Your task to perform on an android device: turn on showing notifications on the lock screen Image 0: 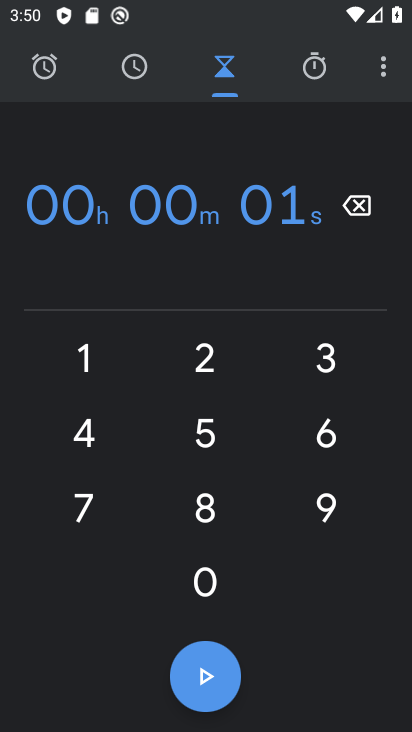
Step 0: press home button
Your task to perform on an android device: turn on showing notifications on the lock screen Image 1: 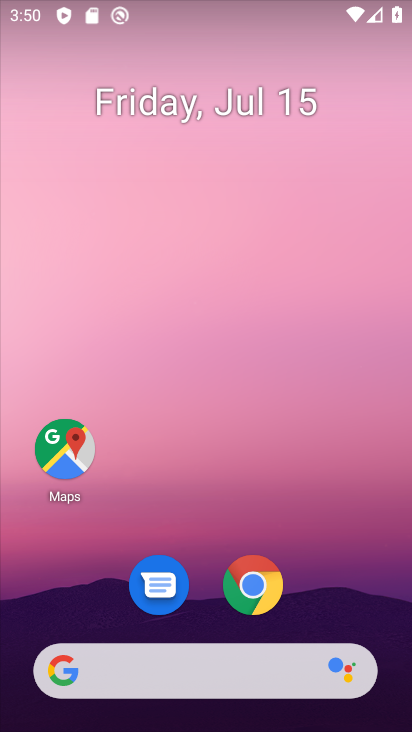
Step 1: drag from (317, 563) to (294, 0)
Your task to perform on an android device: turn on showing notifications on the lock screen Image 2: 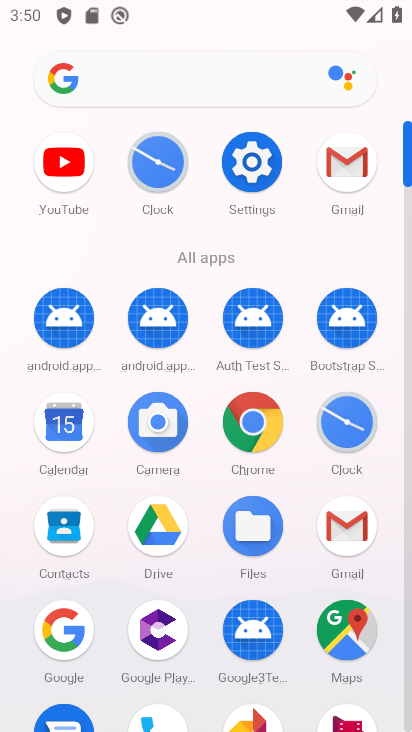
Step 2: click (250, 172)
Your task to perform on an android device: turn on showing notifications on the lock screen Image 3: 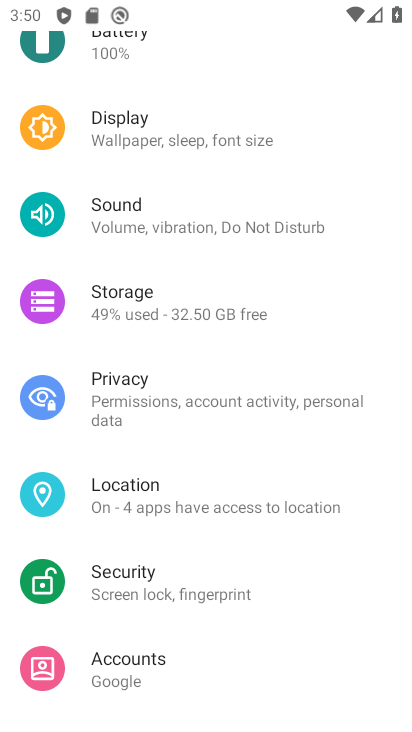
Step 3: drag from (208, 192) to (298, 565)
Your task to perform on an android device: turn on showing notifications on the lock screen Image 4: 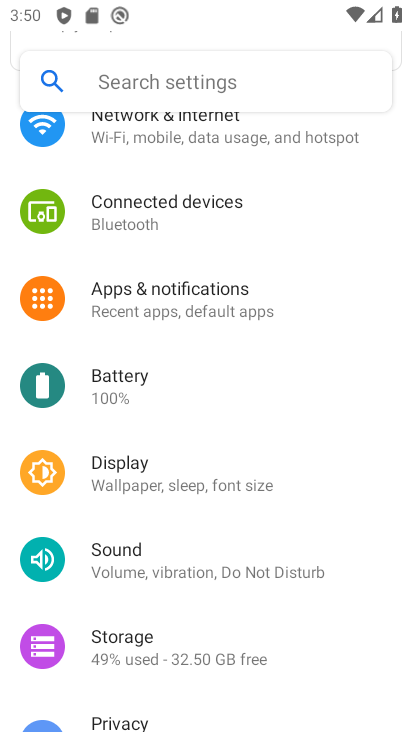
Step 4: click (244, 292)
Your task to perform on an android device: turn on showing notifications on the lock screen Image 5: 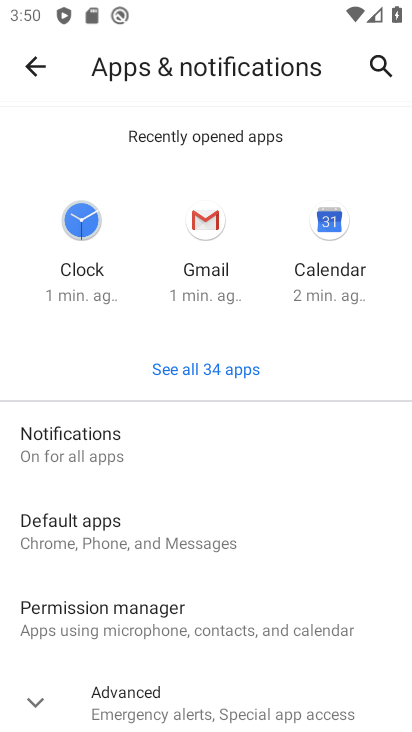
Step 5: click (104, 449)
Your task to perform on an android device: turn on showing notifications on the lock screen Image 6: 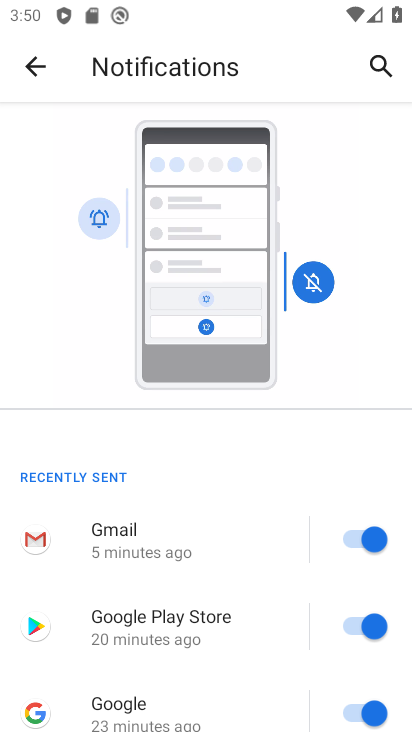
Step 6: drag from (239, 667) to (238, 175)
Your task to perform on an android device: turn on showing notifications on the lock screen Image 7: 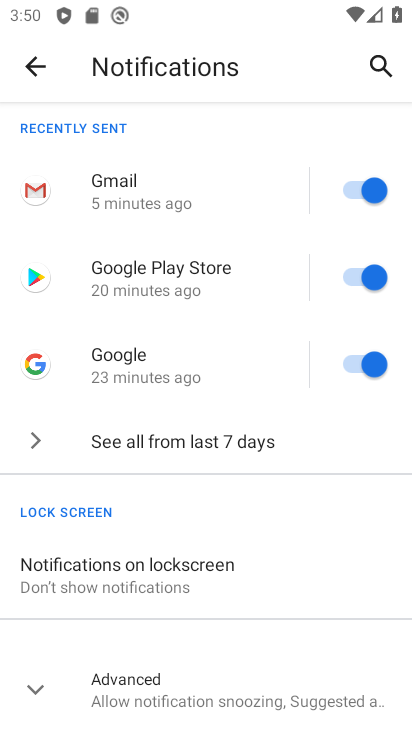
Step 7: click (168, 576)
Your task to perform on an android device: turn on showing notifications on the lock screen Image 8: 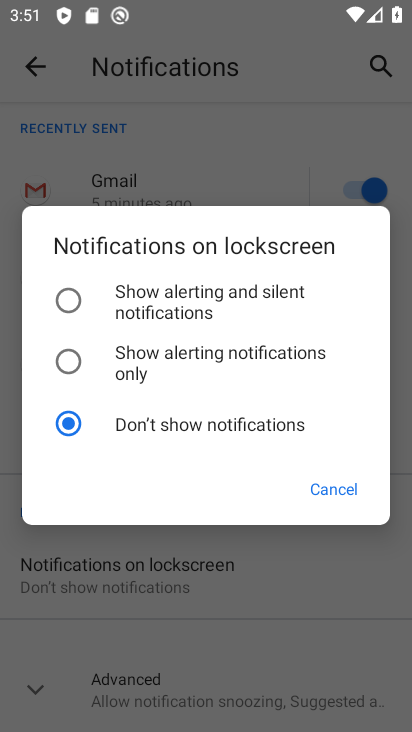
Step 8: click (71, 302)
Your task to perform on an android device: turn on showing notifications on the lock screen Image 9: 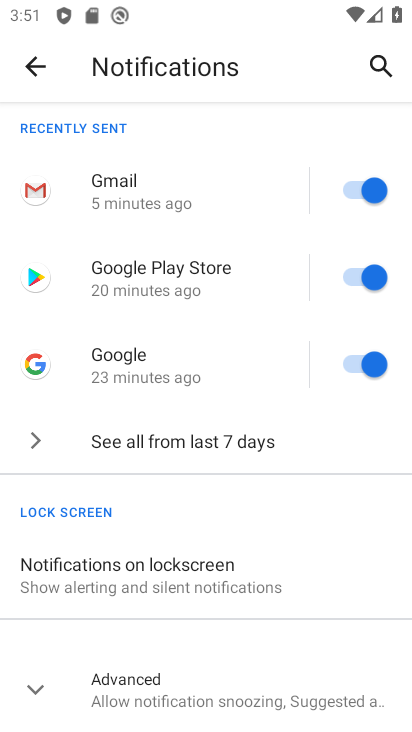
Step 9: task complete